Your task to perform on an android device: Set the phone to "Do not disturb". Image 0: 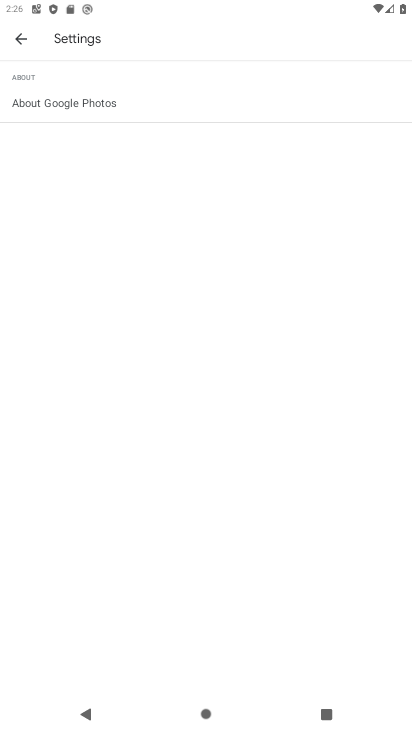
Step 0: press home button
Your task to perform on an android device: Set the phone to "Do not disturb". Image 1: 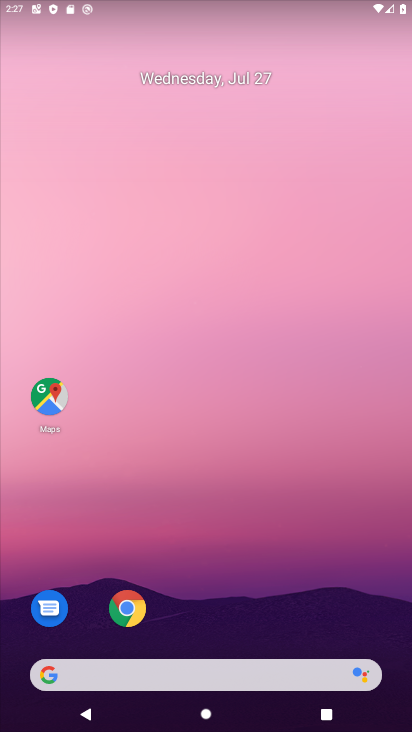
Step 1: drag from (191, 623) to (152, 32)
Your task to perform on an android device: Set the phone to "Do not disturb". Image 2: 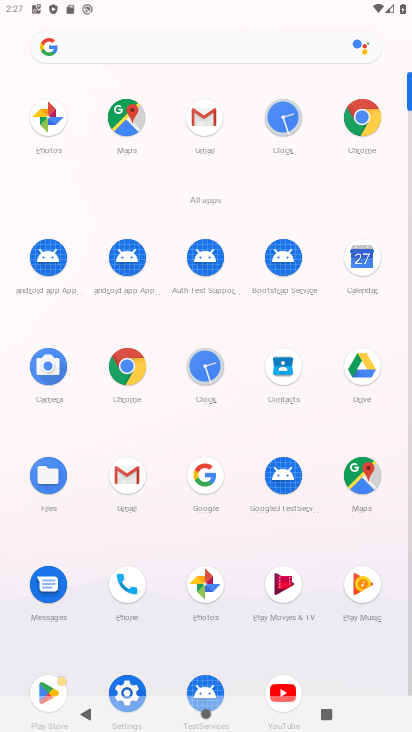
Step 2: click (124, 686)
Your task to perform on an android device: Set the phone to "Do not disturb". Image 3: 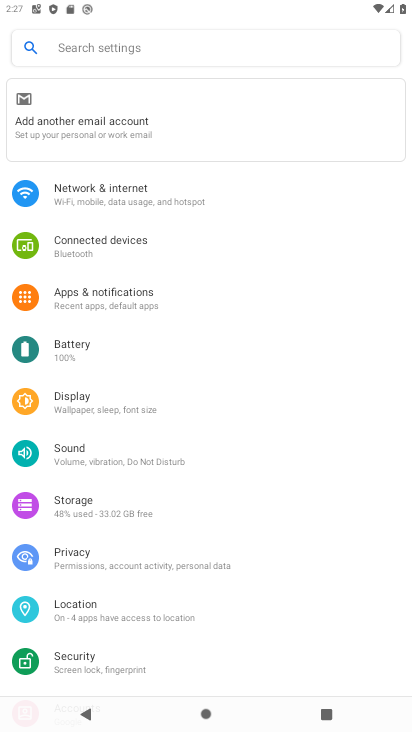
Step 3: click (121, 456)
Your task to perform on an android device: Set the phone to "Do not disturb". Image 4: 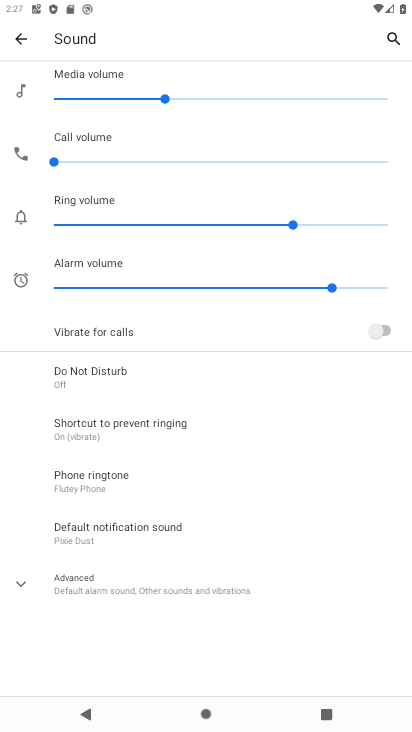
Step 4: click (152, 370)
Your task to perform on an android device: Set the phone to "Do not disturb". Image 5: 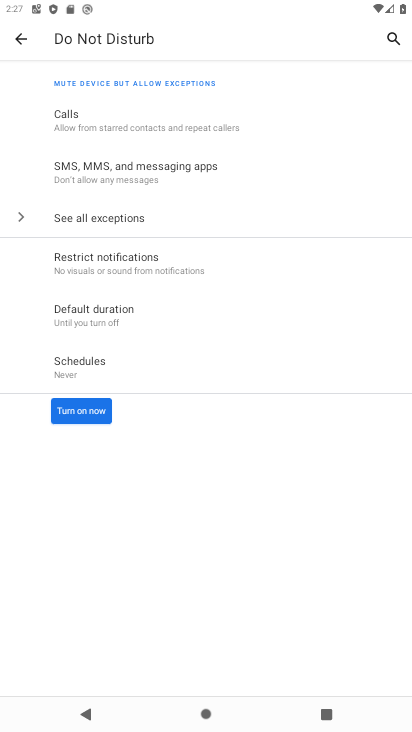
Step 5: click (91, 402)
Your task to perform on an android device: Set the phone to "Do not disturb". Image 6: 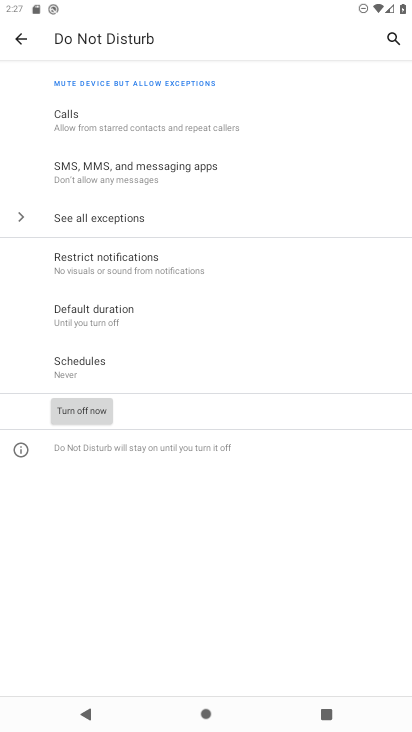
Step 6: task complete